Your task to perform on an android device: Open Google Chrome Image 0: 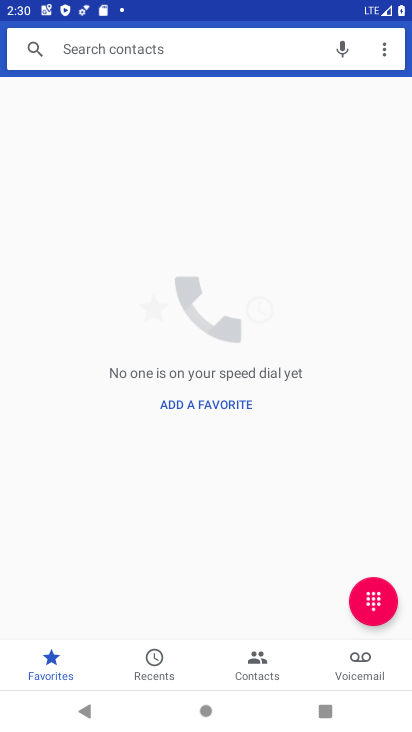
Step 0: press home button
Your task to perform on an android device: Open Google Chrome Image 1: 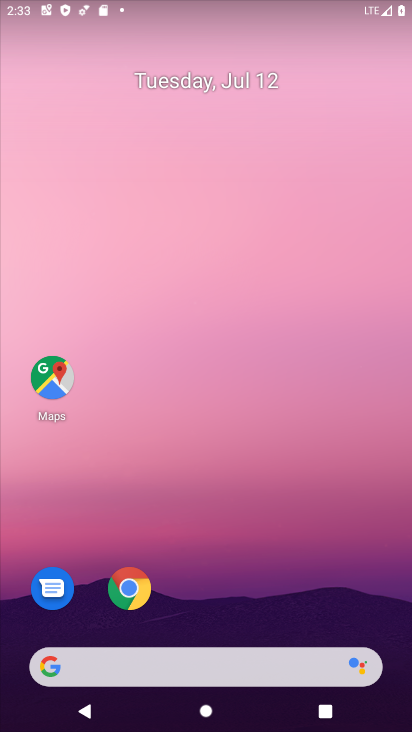
Step 1: click (132, 603)
Your task to perform on an android device: Open Google Chrome Image 2: 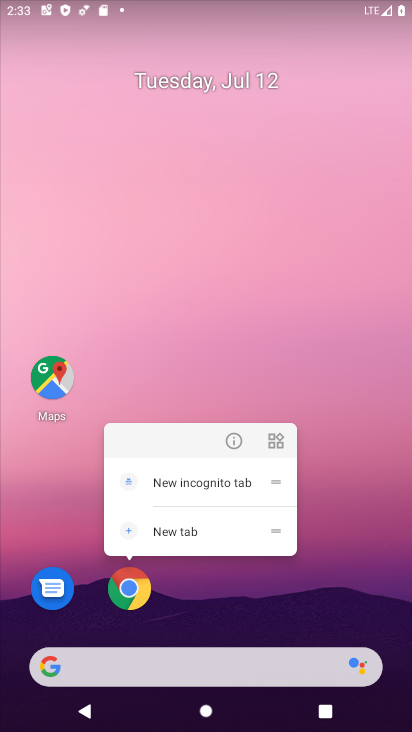
Step 2: click (125, 579)
Your task to perform on an android device: Open Google Chrome Image 3: 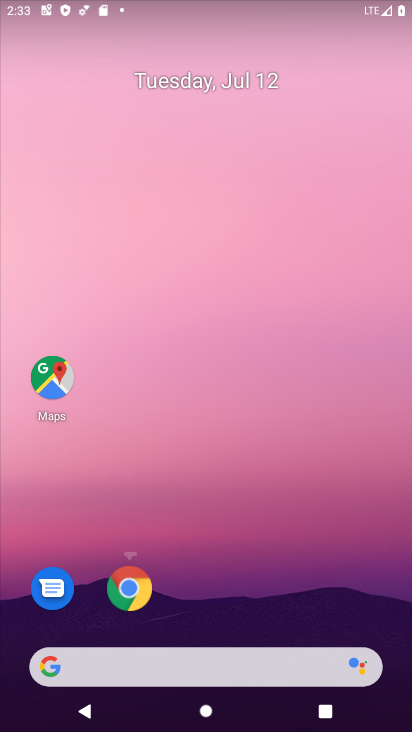
Step 3: click (125, 579)
Your task to perform on an android device: Open Google Chrome Image 4: 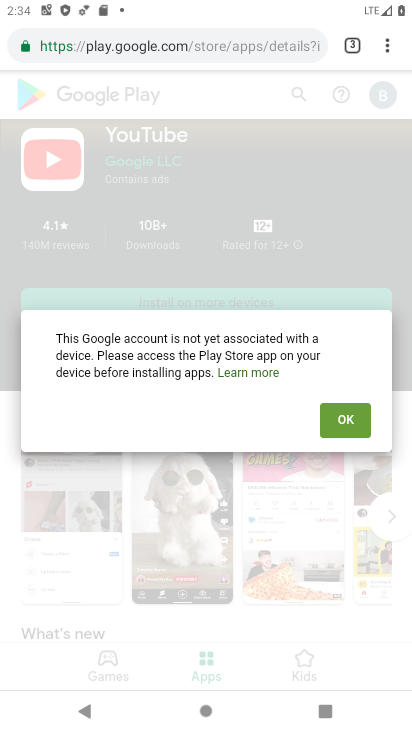
Step 4: click (353, 424)
Your task to perform on an android device: Open Google Chrome Image 5: 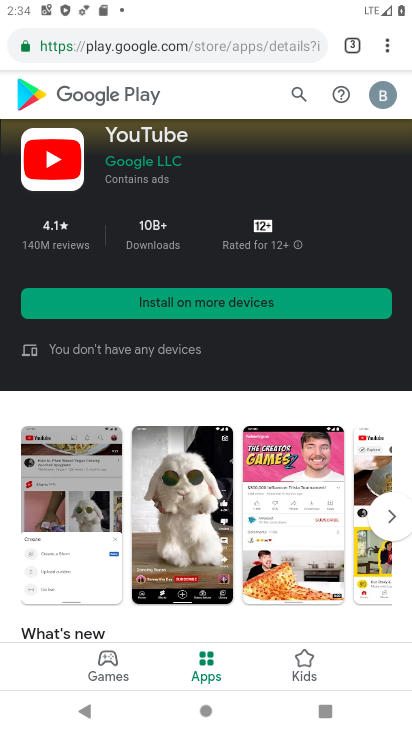
Step 5: task complete